Your task to perform on an android device: Open settings on Google Maps Image 0: 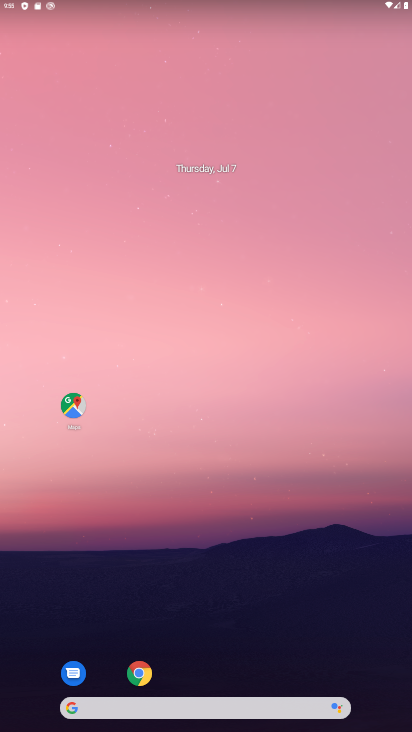
Step 0: click (71, 408)
Your task to perform on an android device: Open settings on Google Maps Image 1: 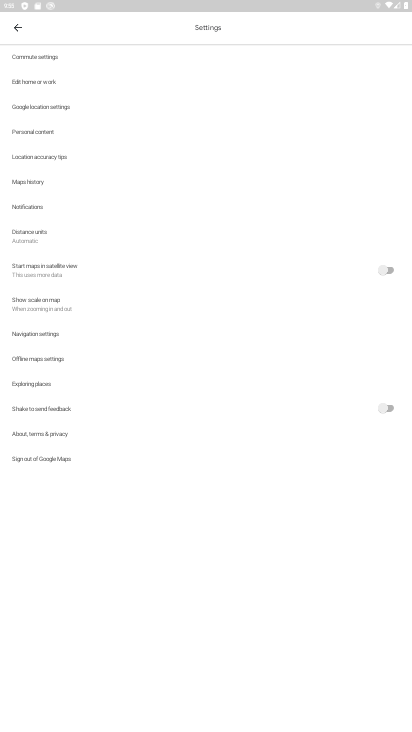
Step 1: task complete